Your task to perform on an android device: turn notification dots on Image 0: 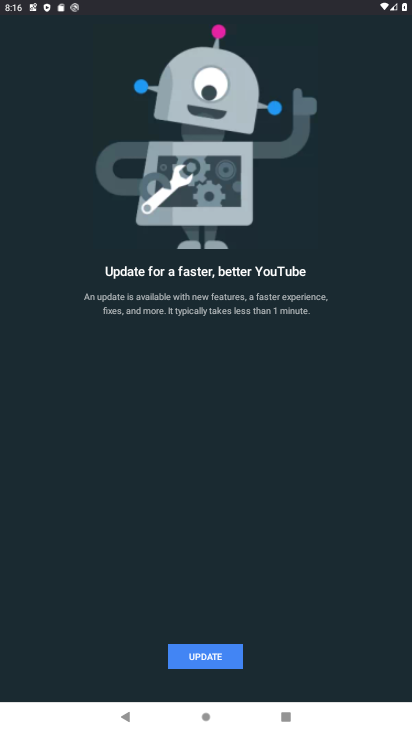
Step 0: press home button
Your task to perform on an android device: turn notification dots on Image 1: 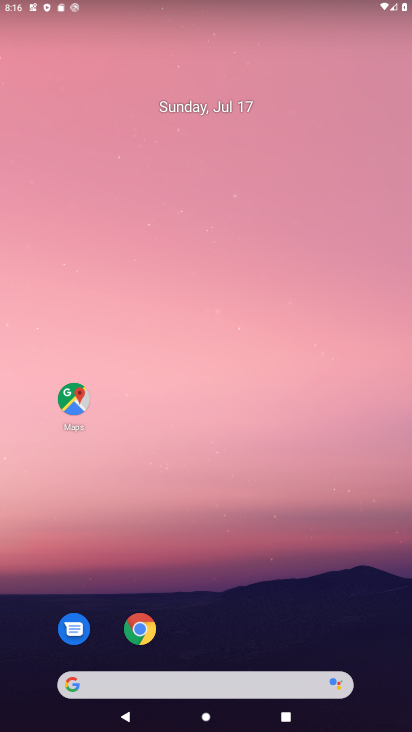
Step 1: drag from (233, 698) to (234, 91)
Your task to perform on an android device: turn notification dots on Image 2: 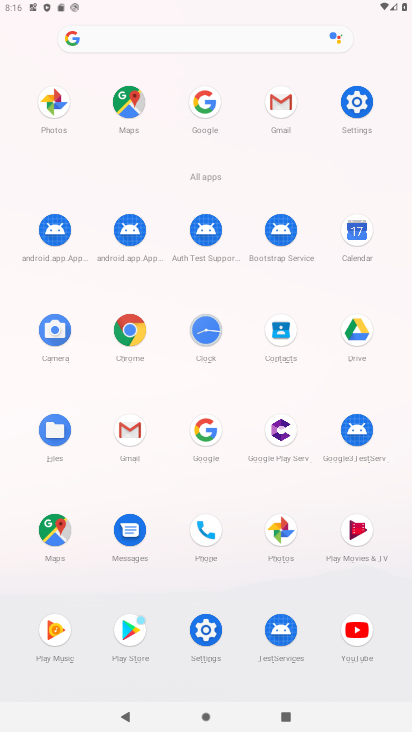
Step 2: click (364, 92)
Your task to perform on an android device: turn notification dots on Image 3: 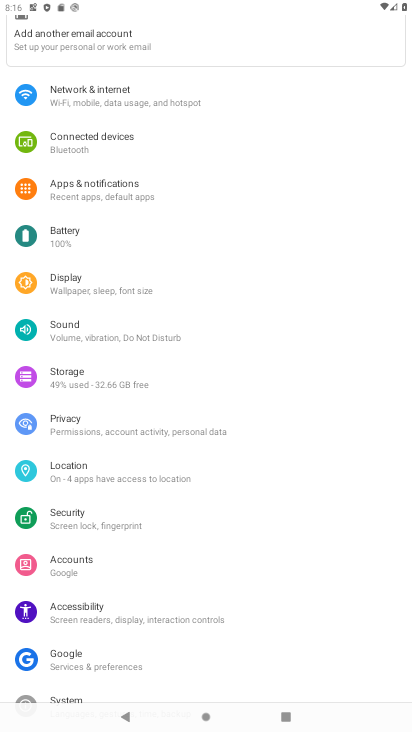
Step 3: click (119, 184)
Your task to perform on an android device: turn notification dots on Image 4: 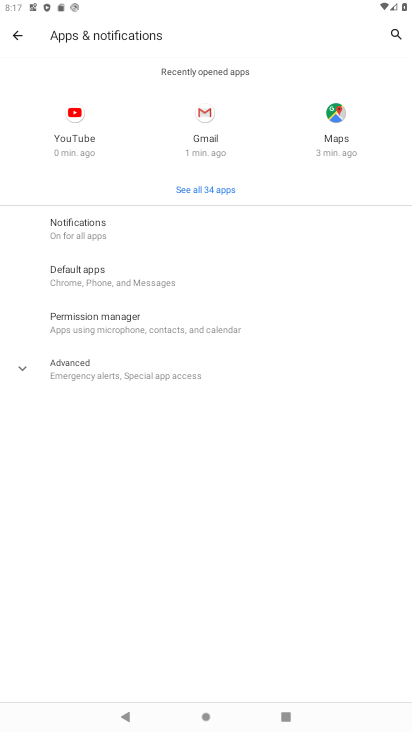
Step 4: click (89, 219)
Your task to perform on an android device: turn notification dots on Image 5: 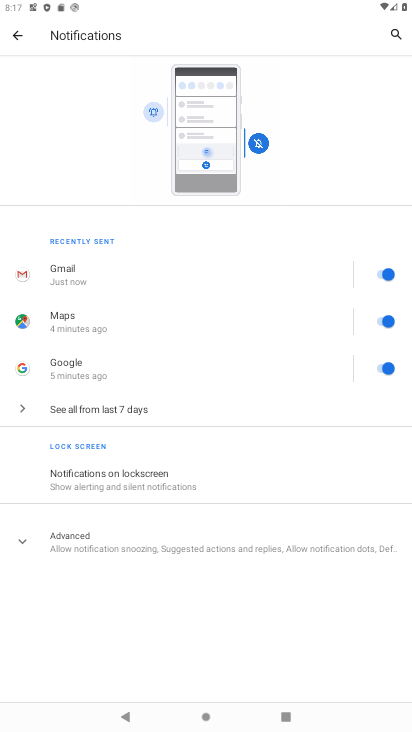
Step 5: click (115, 534)
Your task to perform on an android device: turn notification dots on Image 6: 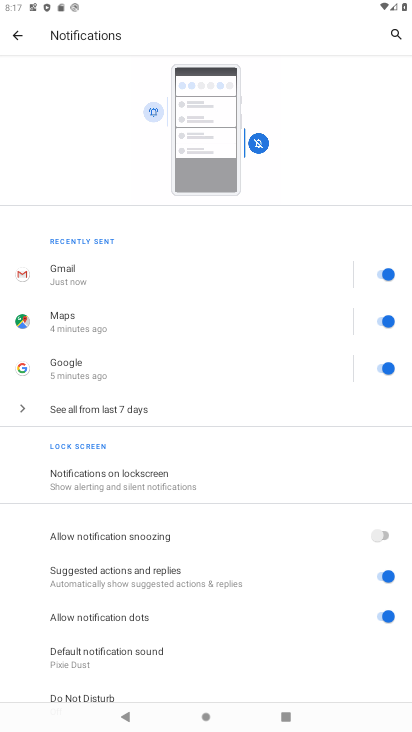
Step 6: task complete